Your task to perform on an android device: change keyboard looks Image 0: 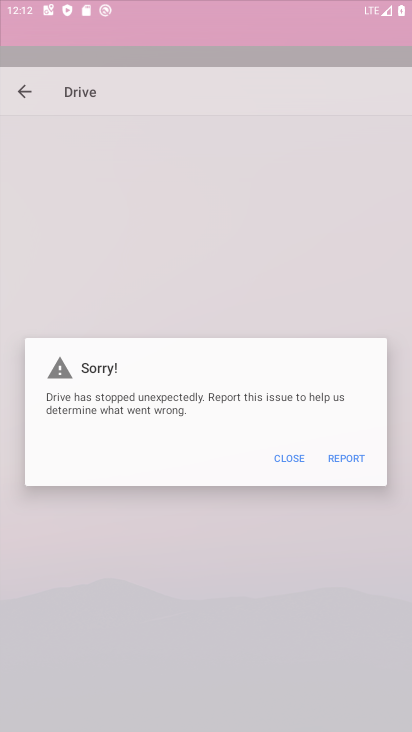
Step 0: click (257, 10)
Your task to perform on an android device: change keyboard looks Image 1: 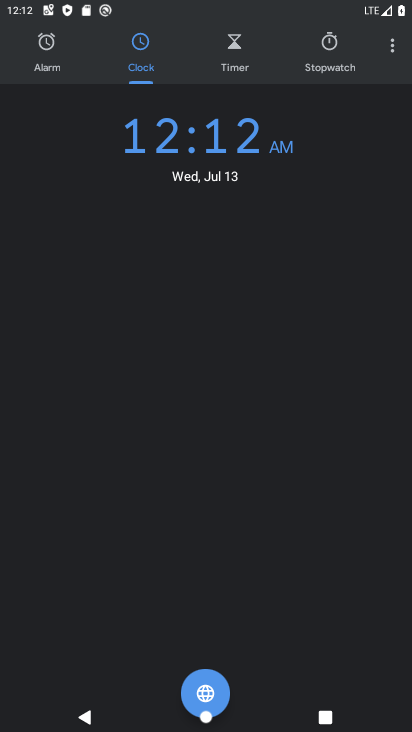
Step 1: press home button
Your task to perform on an android device: change keyboard looks Image 2: 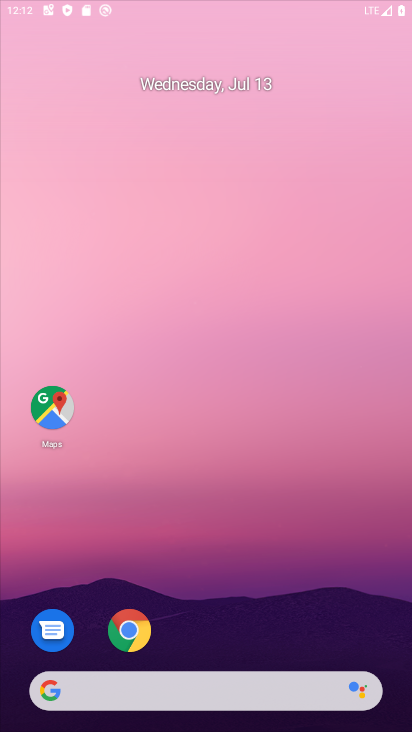
Step 2: drag from (392, 702) to (215, 57)
Your task to perform on an android device: change keyboard looks Image 3: 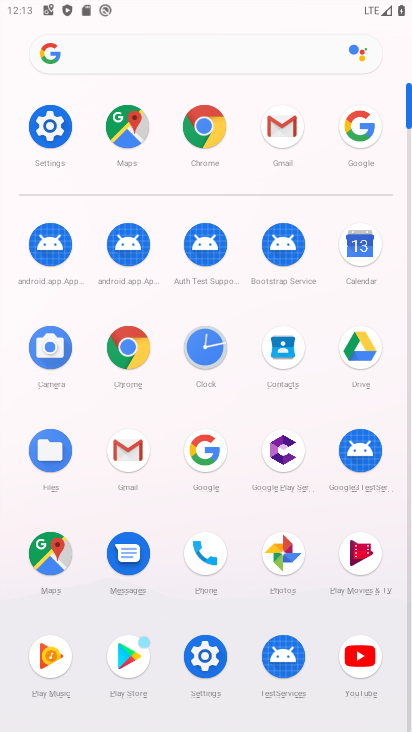
Step 3: click (193, 668)
Your task to perform on an android device: change keyboard looks Image 4: 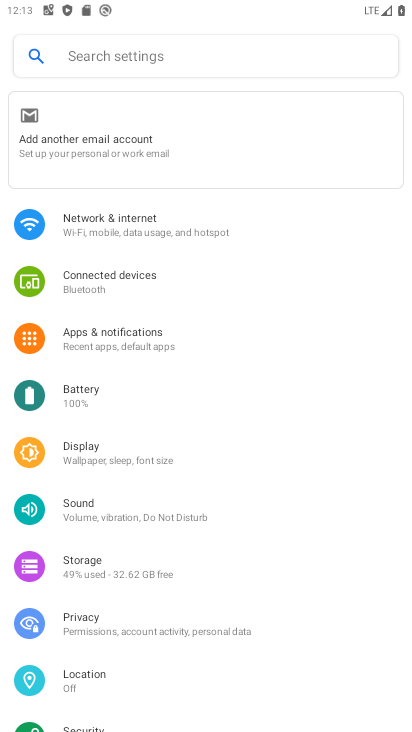
Step 4: drag from (228, 679) to (207, 10)
Your task to perform on an android device: change keyboard looks Image 5: 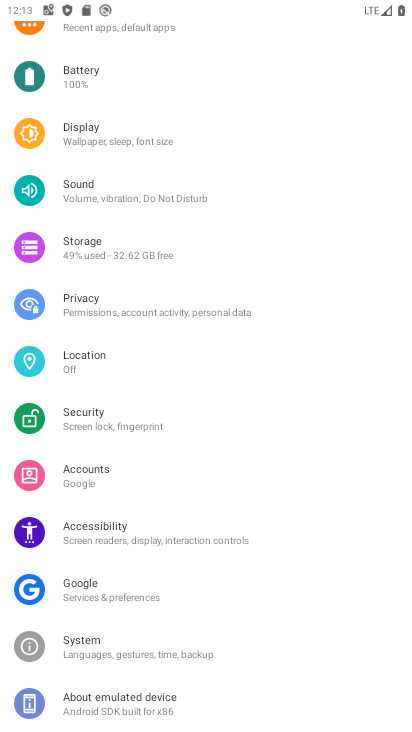
Step 5: click (105, 649)
Your task to perform on an android device: change keyboard looks Image 6: 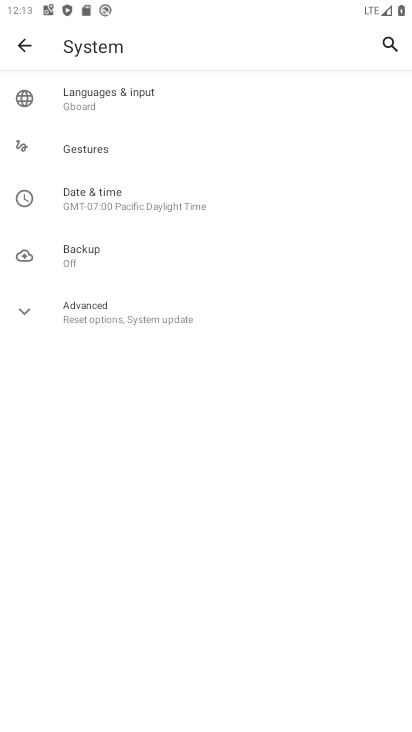
Step 6: click (124, 105)
Your task to perform on an android device: change keyboard looks Image 7: 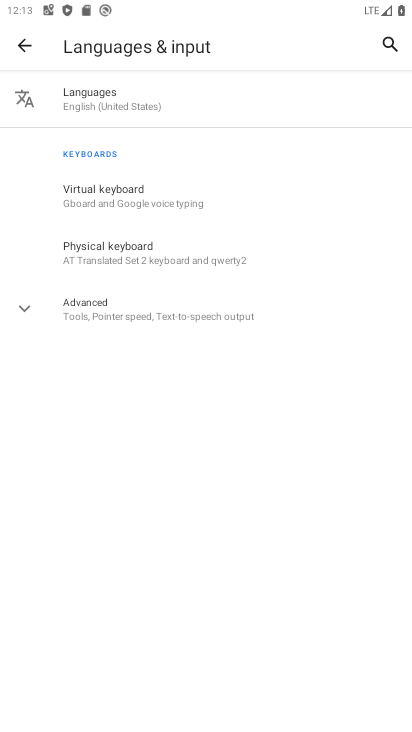
Step 7: click (110, 200)
Your task to perform on an android device: change keyboard looks Image 8: 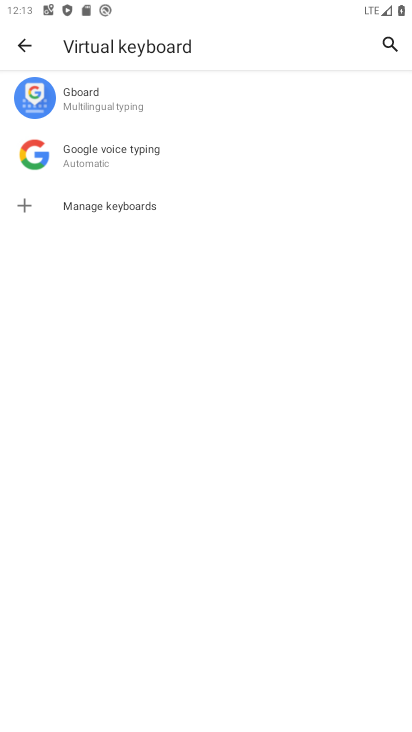
Step 8: click (116, 100)
Your task to perform on an android device: change keyboard looks Image 9: 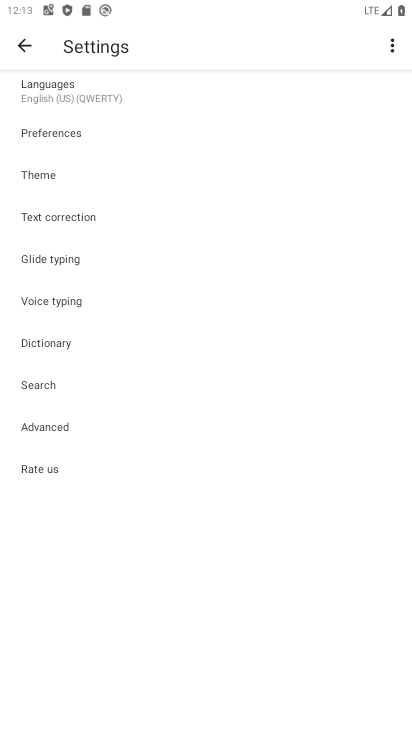
Step 9: click (55, 185)
Your task to perform on an android device: change keyboard looks Image 10: 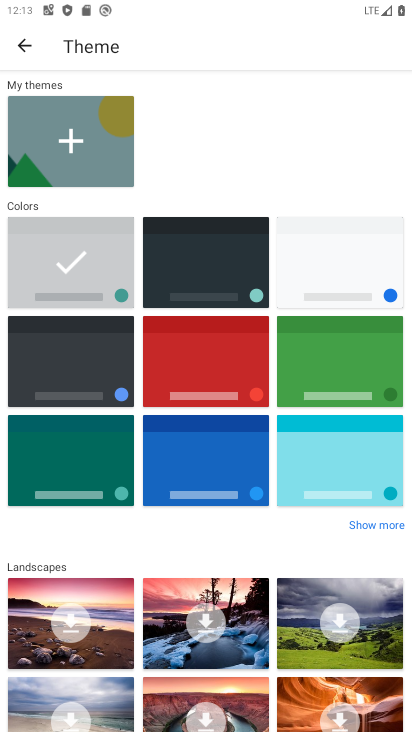
Step 10: click (244, 270)
Your task to perform on an android device: change keyboard looks Image 11: 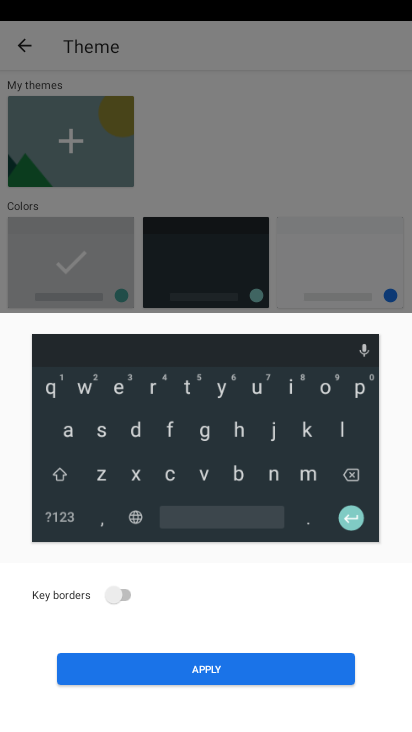
Step 11: click (213, 672)
Your task to perform on an android device: change keyboard looks Image 12: 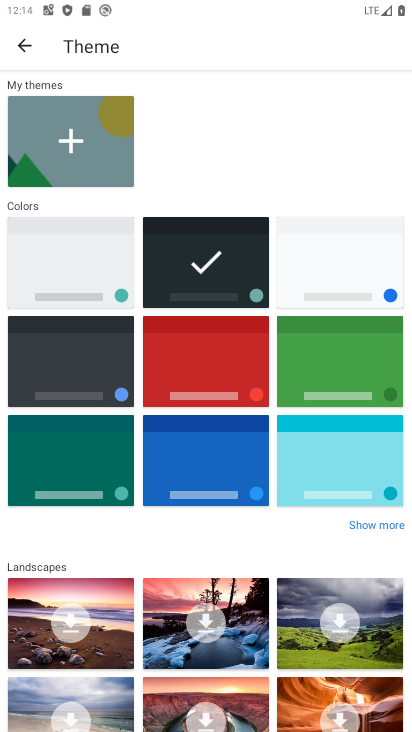
Step 12: task complete